Your task to perform on an android device: turn on priority inbox in the gmail app Image 0: 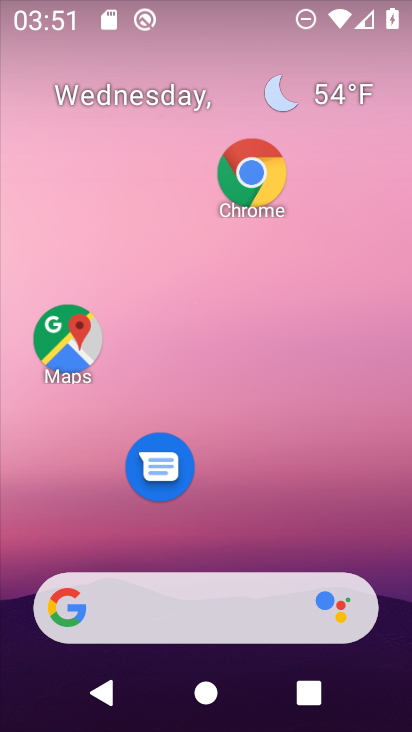
Step 0: drag from (198, 503) to (290, 65)
Your task to perform on an android device: turn on priority inbox in the gmail app Image 1: 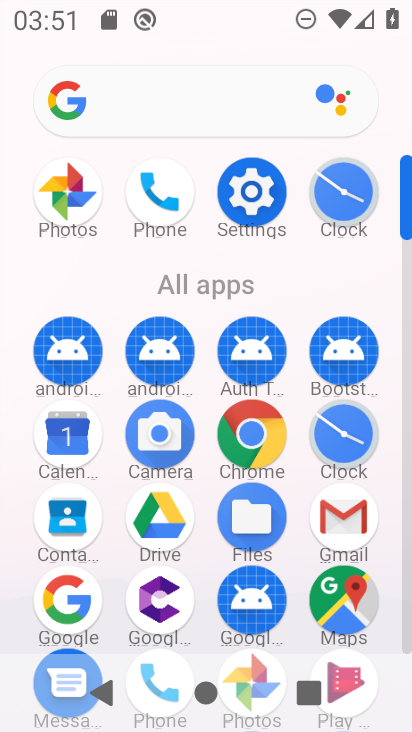
Step 1: click (353, 517)
Your task to perform on an android device: turn on priority inbox in the gmail app Image 2: 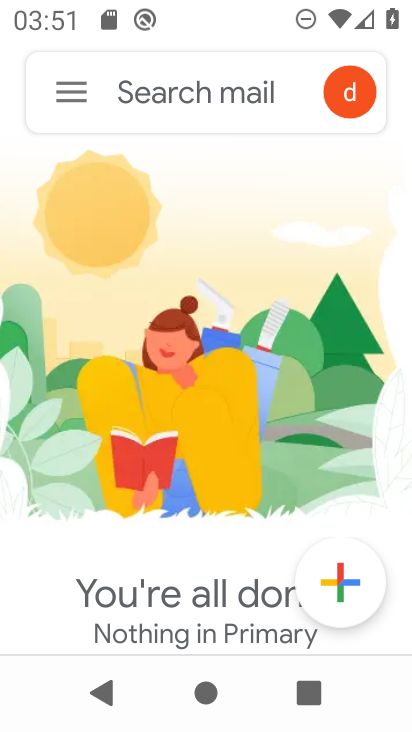
Step 2: click (73, 88)
Your task to perform on an android device: turn on priority inbox in the gmail app Image 3: 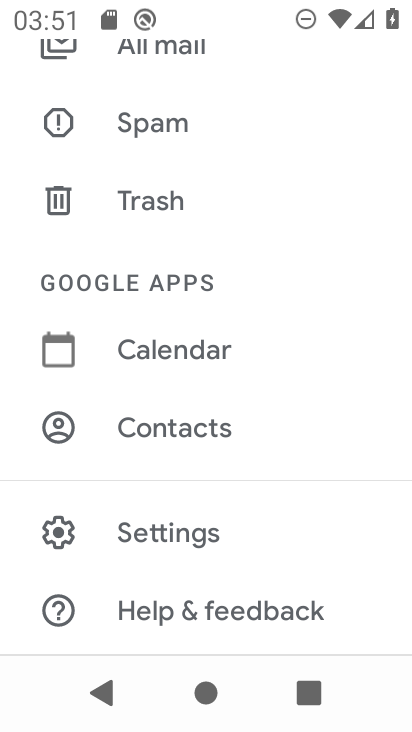
Step 3: click (178, 521)
Your task to perform on an android device: turn on priority inbox in the gmail app Image 4: 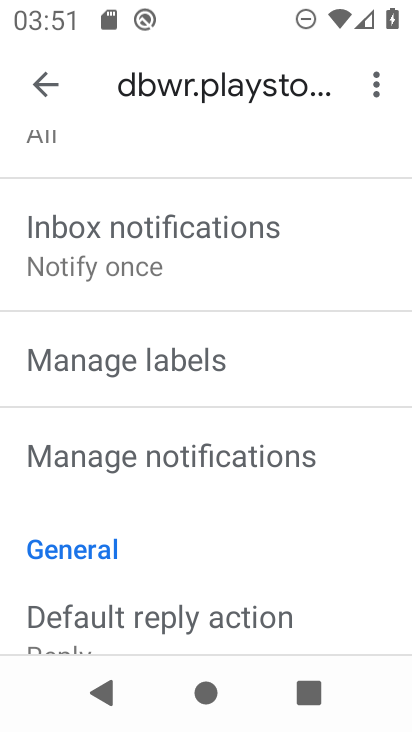
Step 4: drag from (112, 218) to (109, 668)
Your task to perform on an android device: turn on priority inbox in the gmail app Image 5: 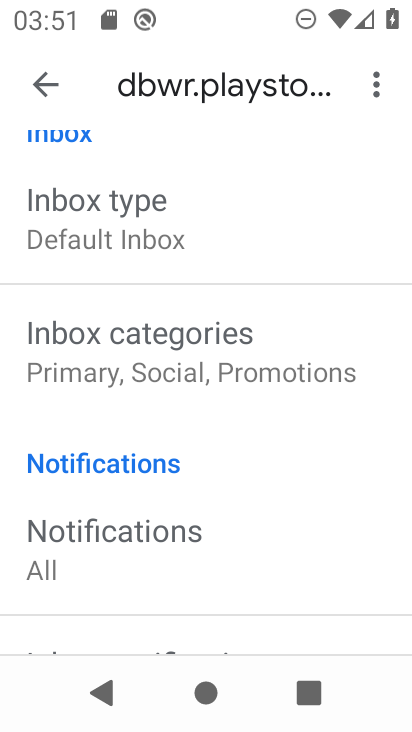
Step 5: drag from (140, 256) to (137, 630)
Your task to perform on an android device: turn on priority inbox in the gmail app Image 6: 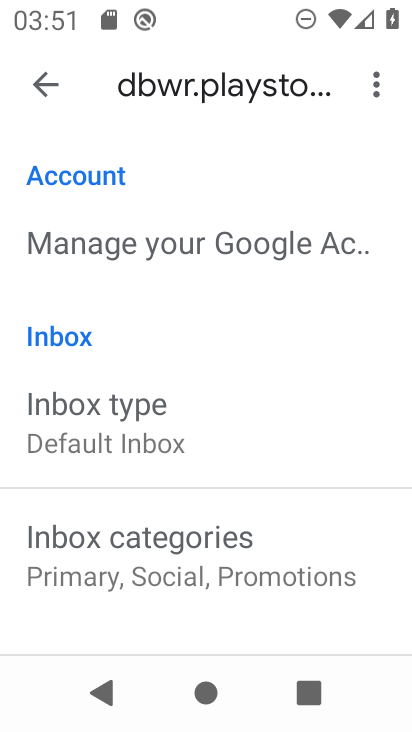
Step 6: click (130, 418)
Your task to perform on an android device: turn on priority inbox in the gmail app Image 7: 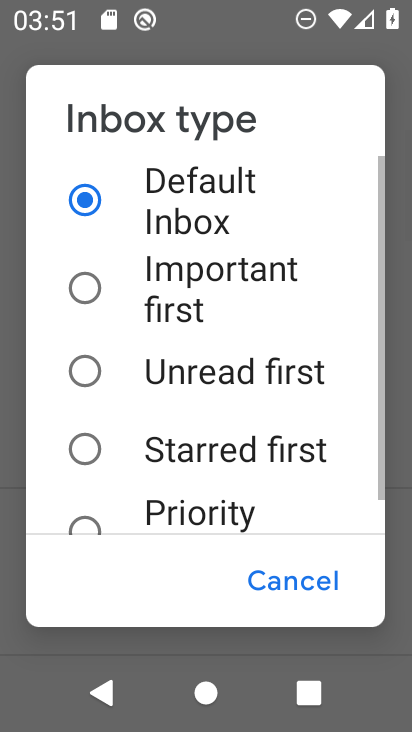
Step 7: click (106, 518)
Your task to perform on an android device: turn on priority inbox in the gmail app Image 8: 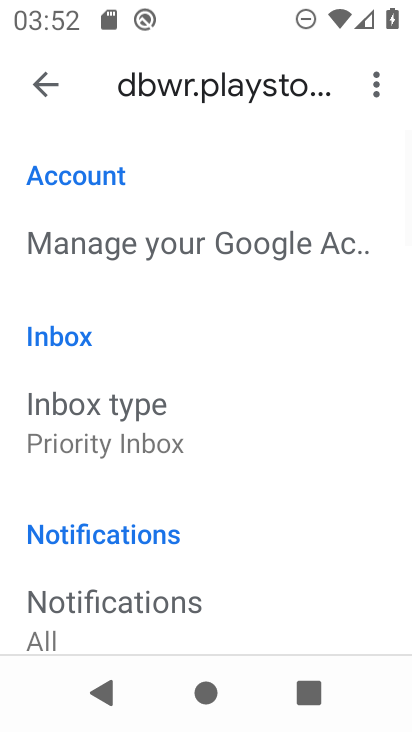
Step 8: task complete